Your task to perform on an android device: Go to display settings Image 0: 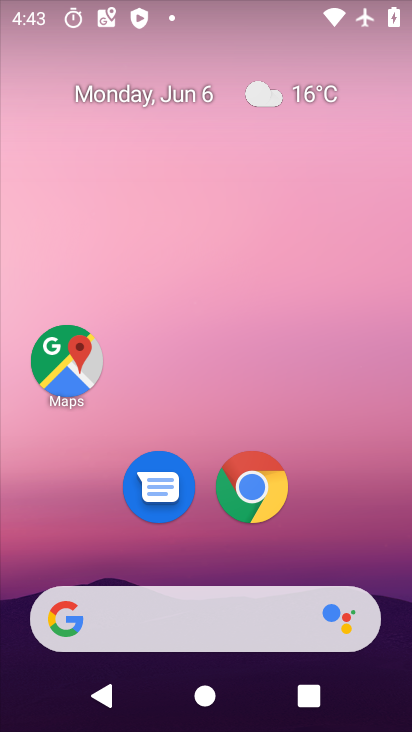
Step 0: drag from (327, 460) to (270, 19)
Your task to perform on an android device: Go to display settings Image 1: 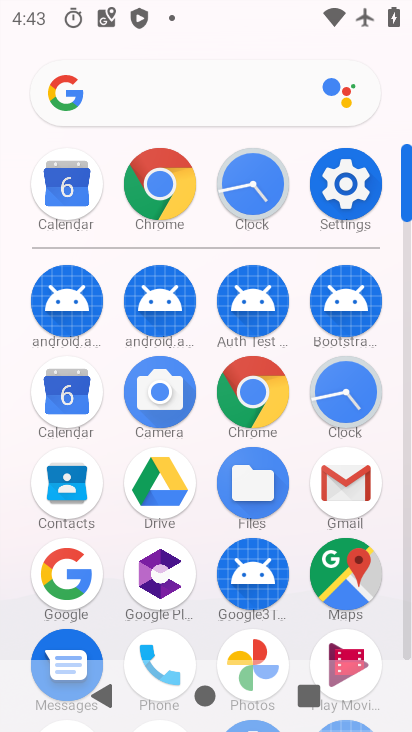
Step 1: click (357, 198)
Your task to perform on an android device: Go to display settings Image 2: 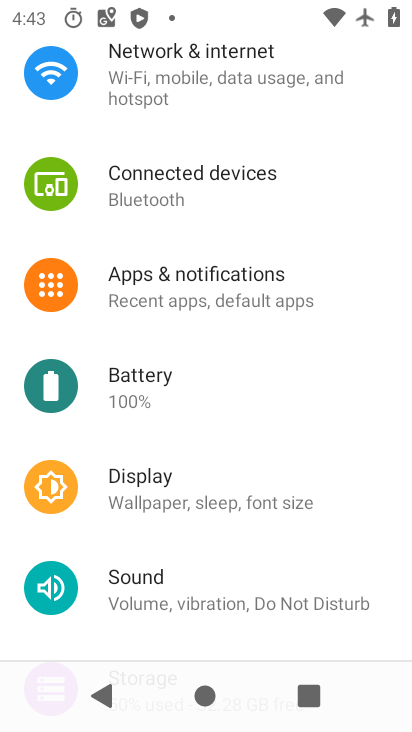
Step 2: click (166, 488)
Your task to perform on an android device: Go to display settings Image 3: 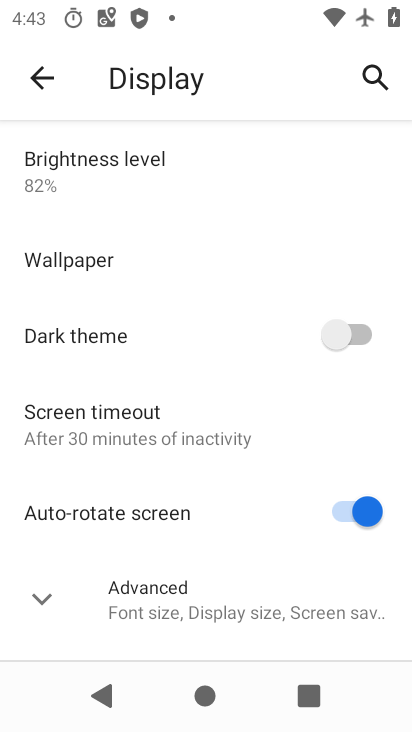
Step 3: task complete